Your task to perform on an android device: Empty the shopping cart on walmart. Add alienware area 51 to the cart on walmart Image 0: 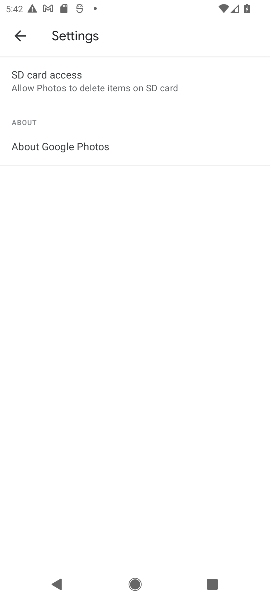
Step 0: press home button
Your task to perform on an android device: Empty the shopping cart on walmart. Add alienware area 51 to the cart on walmart Image 1: 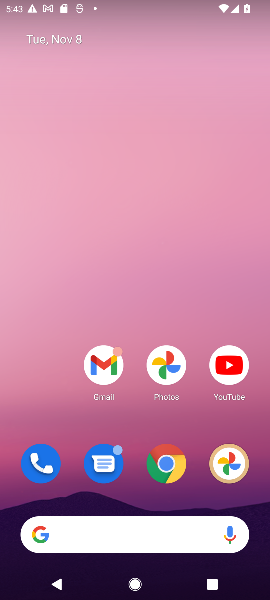
Step 1: click (168, 468)
Your task to perform on an android device: Empty the shopping cart on walmart. Add alienware area 51 to the cart on walmart Image 2: 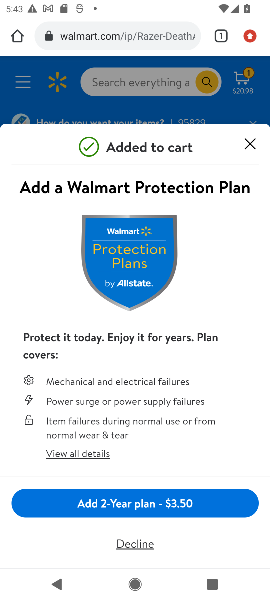
Step 2: click (244, 147)
Your task to perform on an android device: Empty the shopping cart on walmart. Add alienware area 51 to the cart on walmart Image 3: 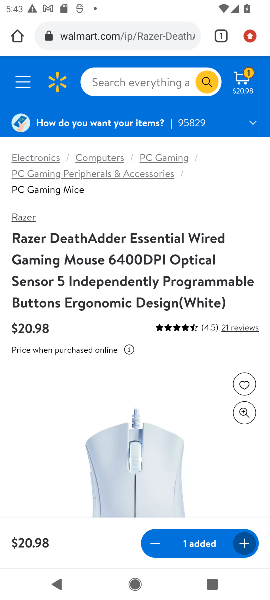
Step 3: click (251, 76)
Your task to perform on an android device: Empty the shopping cart on walmart. Add alienware area 51 to the cart on walmart Image 4: 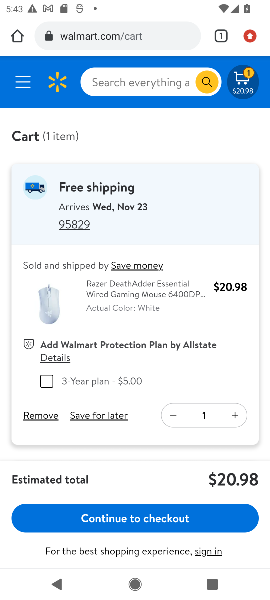
Step 4: click (31, 415)
Your task to perform on an android device: Empty the shopping cart on walmart. Add alienware area 51 to the cart on walmart Image 5: 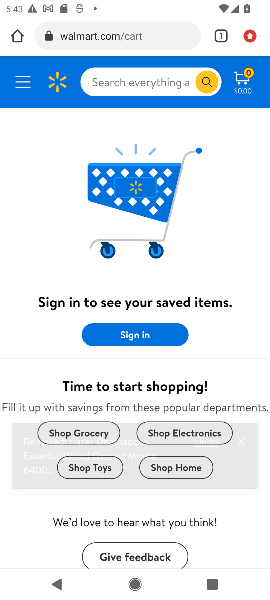
Step 5: click (108, 69)
Your task to perform on an android device: Empty the shopping cart on walmart. Add alienware area 51 to the cart on walmart Image 6: 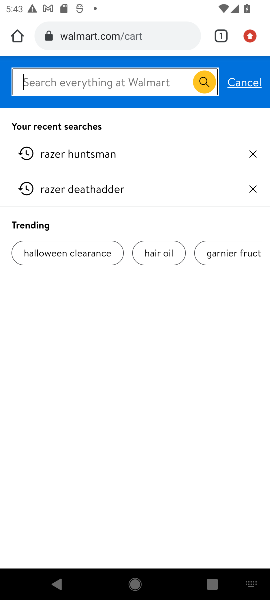
Step 6: type "alienware area 51"
Your task to perform on an android device: Empty the shopping cart on walmart. Add alienware area 51 to the cart on walmart Image 7: 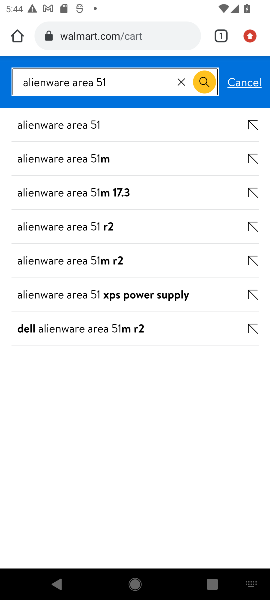
Step 7: click (195, 84)
Your task to perform on an android device: Empty the shopping cart on walmart. Add alienware area 51 to the cart on walmart Image 8: 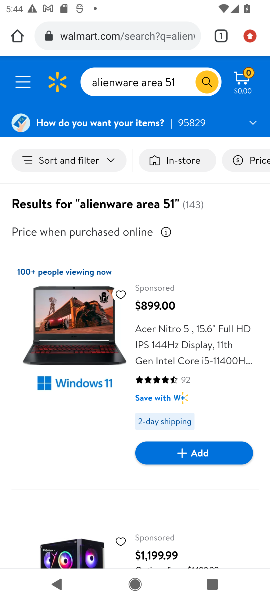
Step 8: click (171, 457)
Your task to perform on an android device: Empty the shopping cart on walmart. Add alienware area 51 to the cart on walmart Image 9: 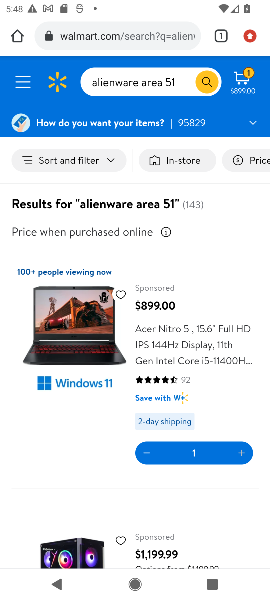
Step 9: task complete